Your task to perform on an android device: change the clock display to digital Image 0: 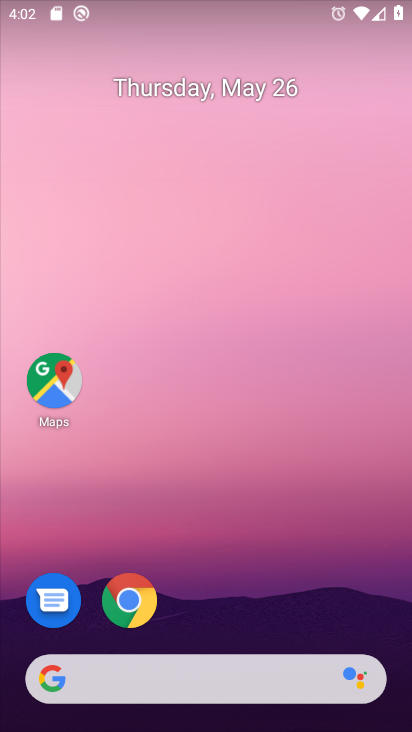
Step 0: drag from (203, 580) to (278, 87)
Your task to perform on an android device: change the clock display to digital Image 1: 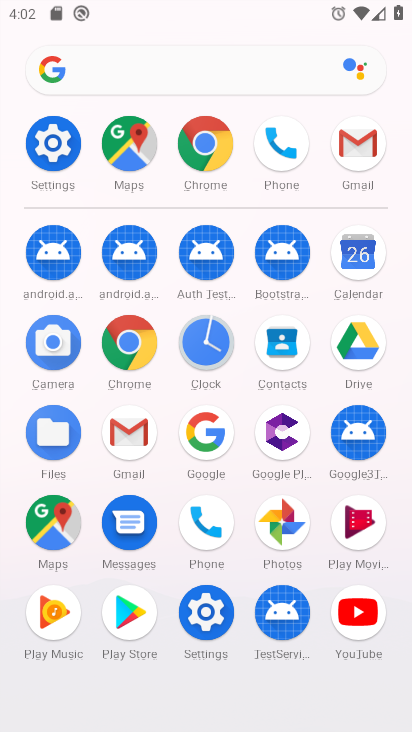
Step 1: click (215, 348)
Your task to perform on an android device: change the clock display to digital Image 2: 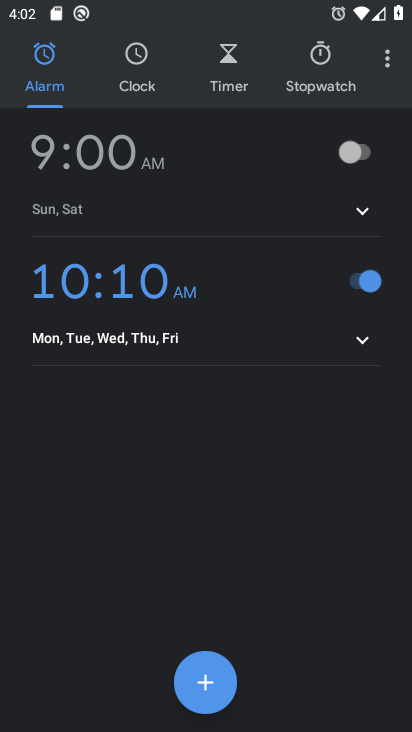
Step 2: click (391, 63)
Your task to perform on an android device: change the clock display to digital Image 3: 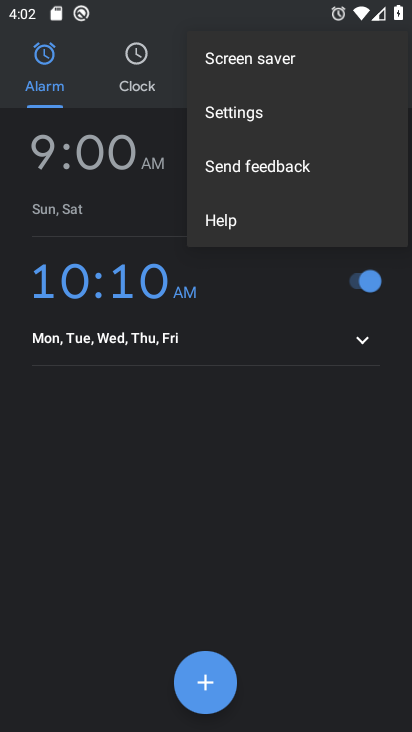
Step 3: click (242, 120)
Your task to perform on an android device: change the clock display to digital Image 4: 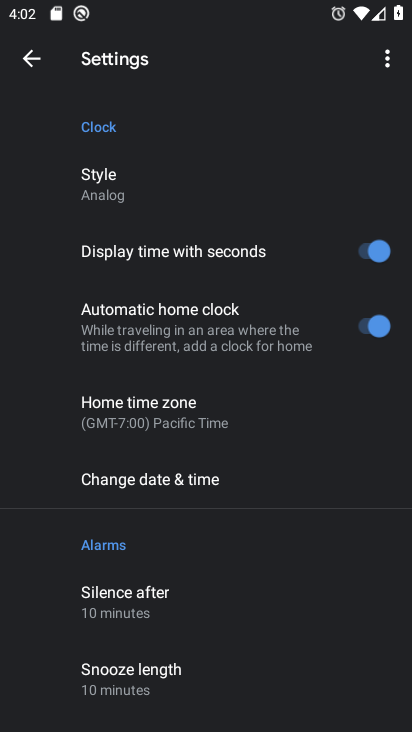
Step 4: click (152, 179)
Your task to perform on an android device: change the clock display to digital Image 5: 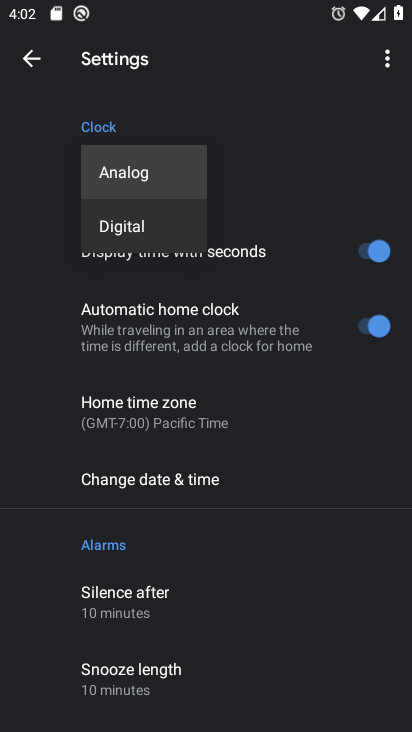
Step 5: click (149, 229)
Your task to perform on an android device: change the clock display to digital Image 6: 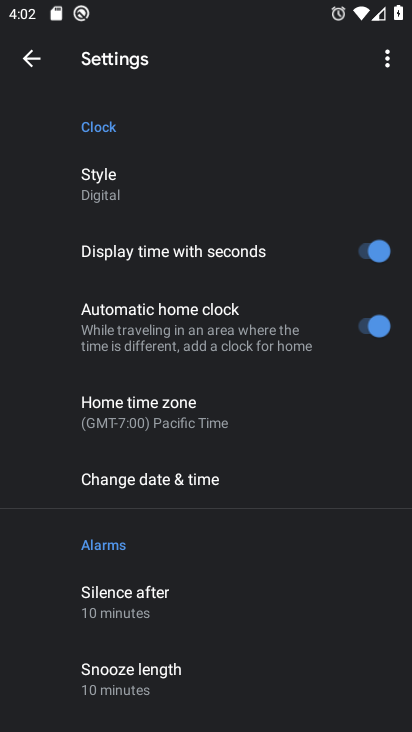
Step 6: task complete